Your task to perform on an android device: Open settings on Google Maps Image 0: 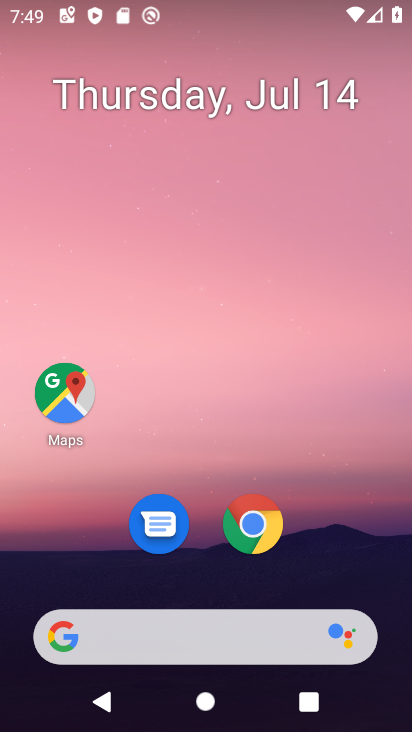
Step 0: click (69, 400)
Your task to perform on an android device: Open settings on Google Maps Image 1: 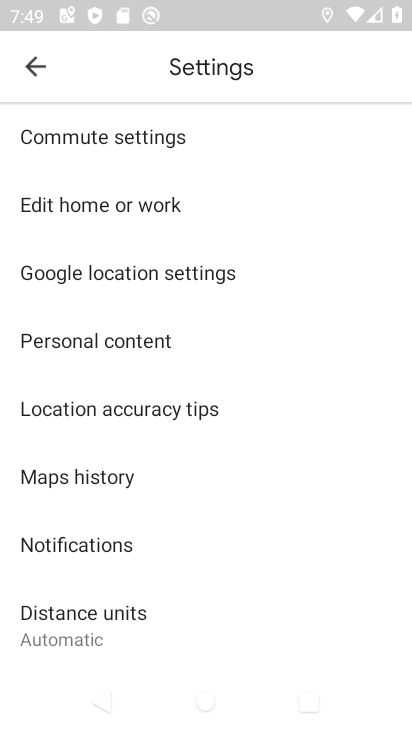
Step 1: task complete